Your task to perform on an android device: install app "WhatsApp Messenger" Image 0: 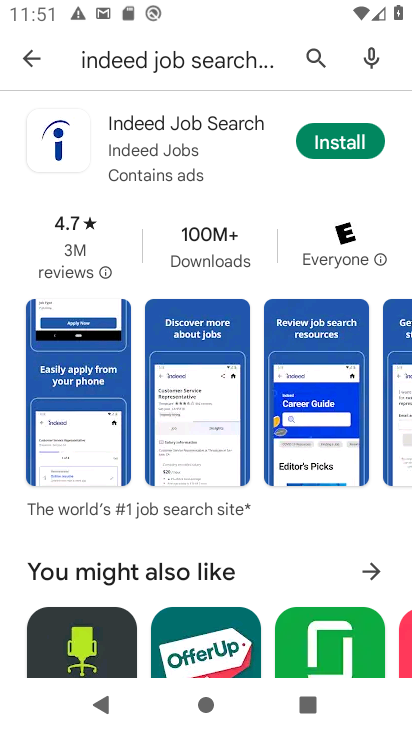
Step 0: press home button
Your task to perform on an android device: install app "WhatsApp Messenger" Image 1: 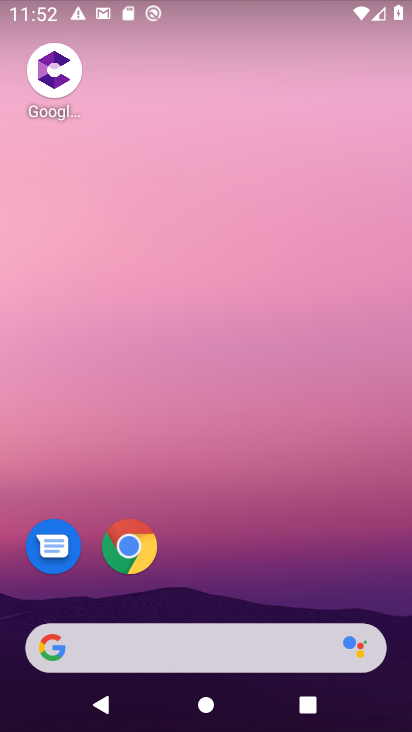
Step 1: drag from (174, 622) to (143, 158)
Your task to perform on an android device: install app "WhatsApp Messenger" Image 2: 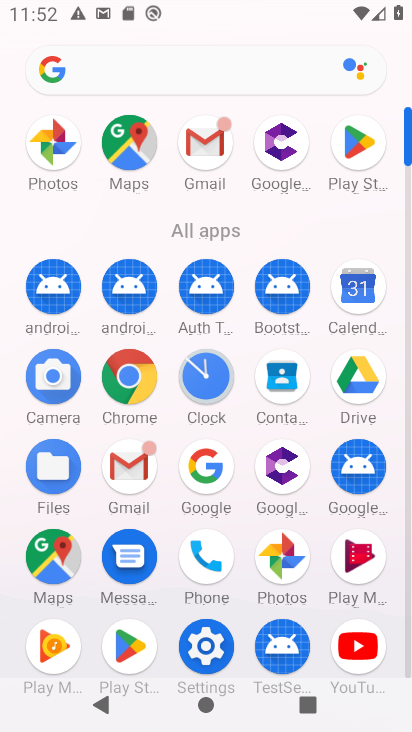
Step 2: click (342, 160)
Your task to perform on an android device: install app "WhatsApp Messenger" Image 3: 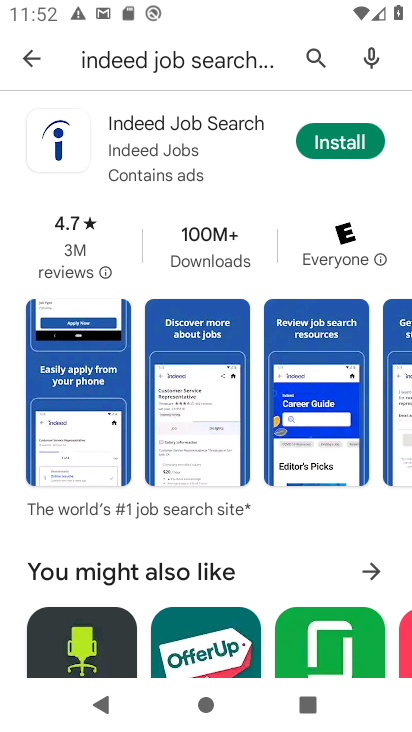
Step 3: click (314, 54)
Your task to perform on an android device: install app "WhatsApp Messenger" Image 4: 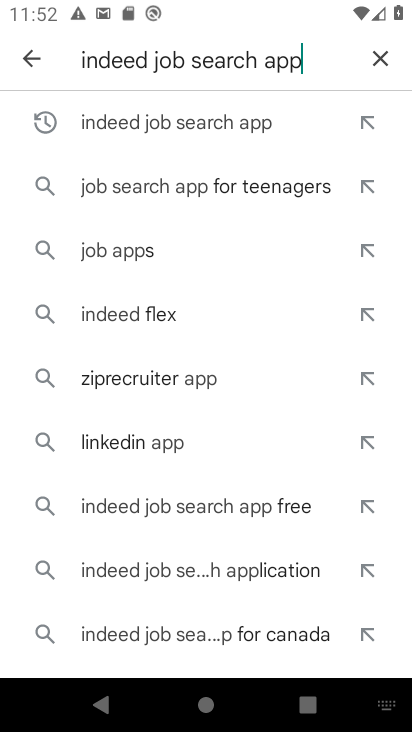
Step 4: click (380, 55)
Your task to perform on an android device: install app "WhatsApp Messenger" Image 5: 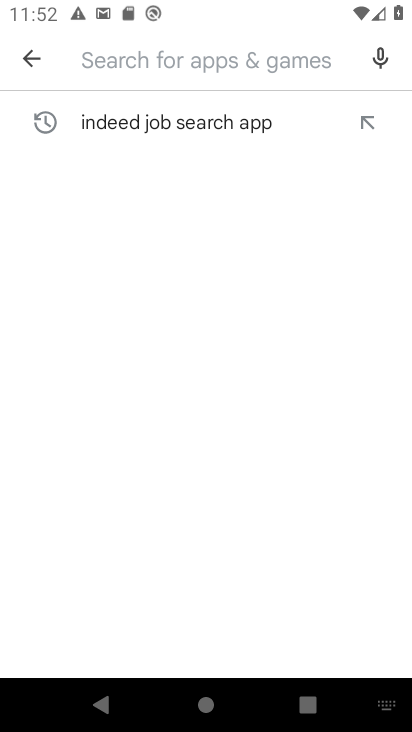
Step 5: type "WhatsApp Messenger"
Your task to perform on an android device: install app "WhatsApp Messenger" Image 6: 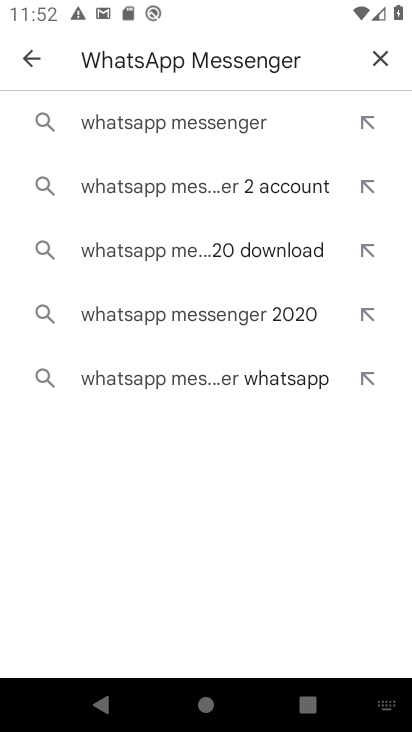
Step 6: click (171, 113)
Your task to perform on an android device: install app "WhatsApp Messenger" Image 7: 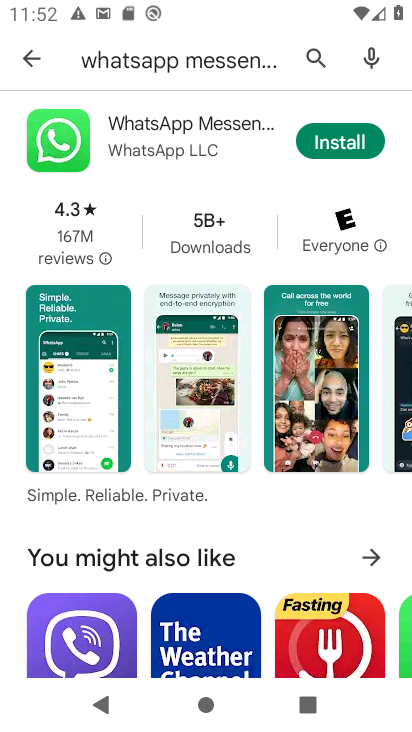
Step 7: click (335, 148)
Your task to perform on an android device: install app "WhatsApp Messenger" Image 8: 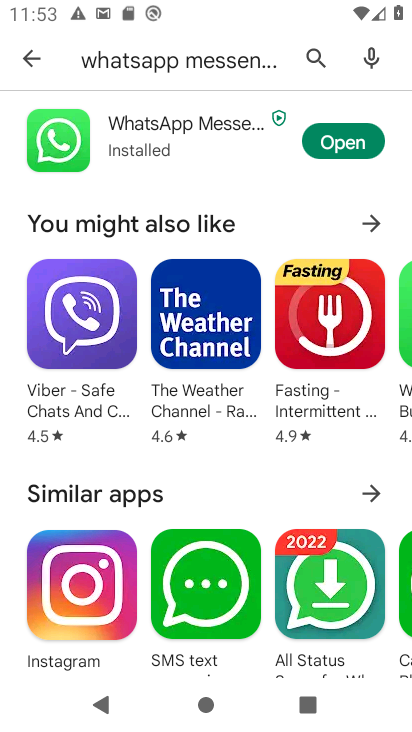
Step 8: task complete